Your task to perform on an android device: visit the assistant section in the google photos Image 0: 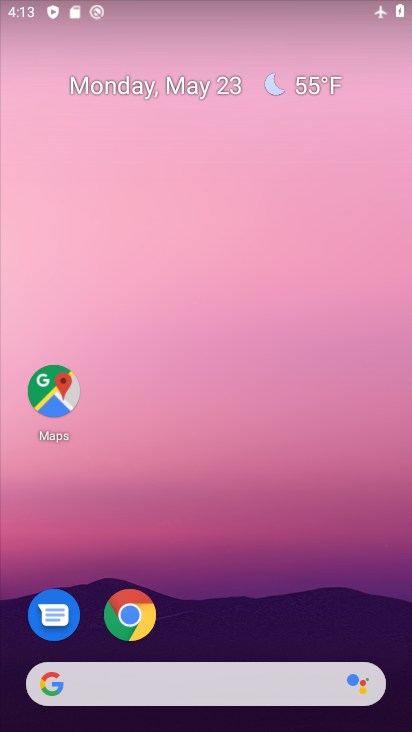
Step 0: drag from (376, 624) to (360, 208)
Your task to perform on an android device: visit the assistant section in the google photos Image 1: 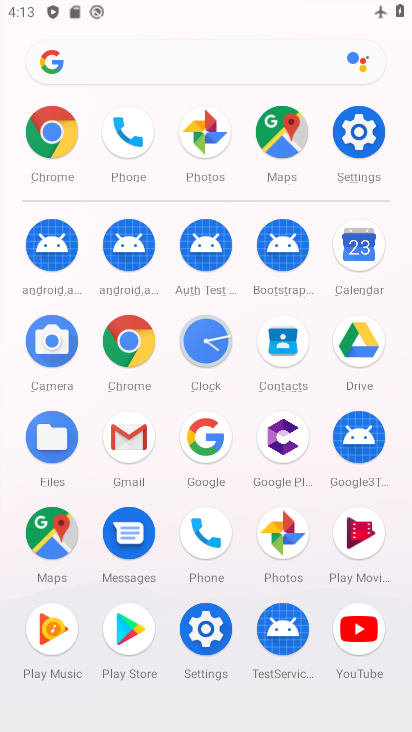
Step 1: click (273, 537)
Your task to perform on an android device: visit the assistant section in the google photos Image 2: 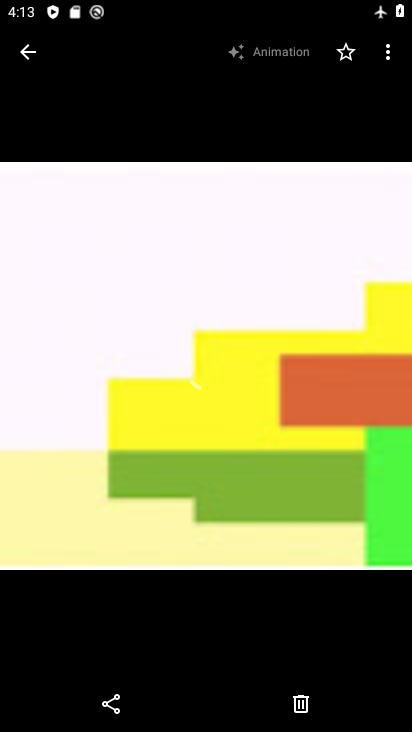
Step 2: click (34, 52)
Your task to perform on an android device: visit the assistant section in the google photos Image 3: 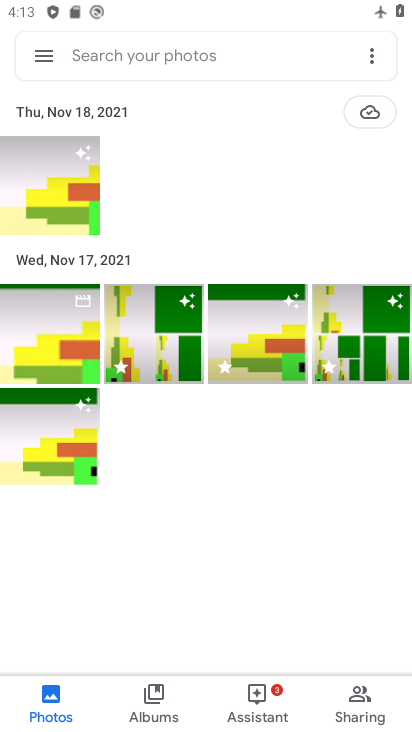
Step 3: click (257, 705)
Your task to perform on an android device: visit the assistant section in the google photos Image 4: 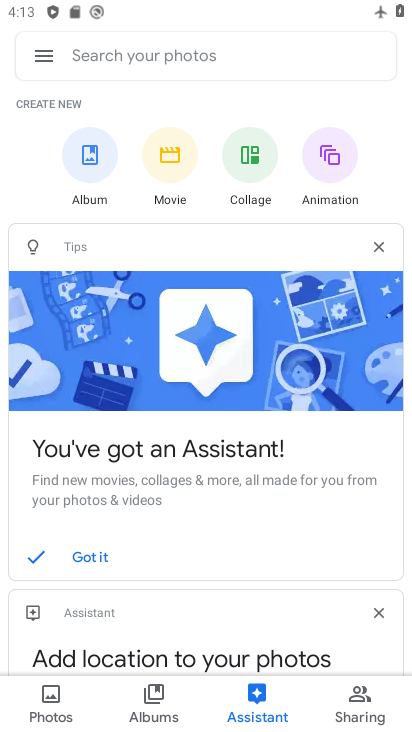
Step 4: task complete